Your task to perform on an android device: What's on my calendar today? Image 0: 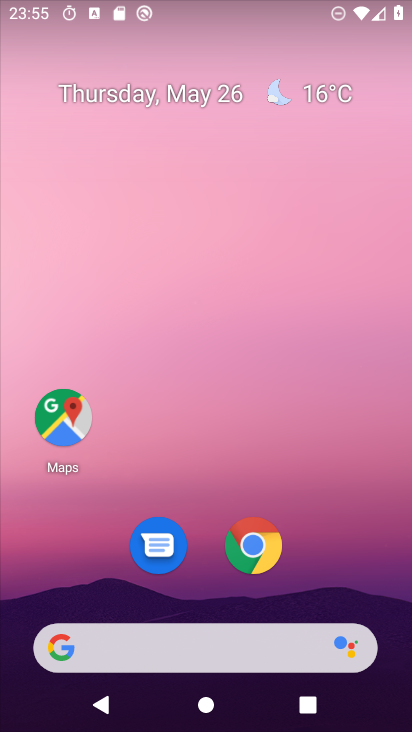
Step 0: press home button
Your task to perform on an android device: What's on my calendar today? Image 1: 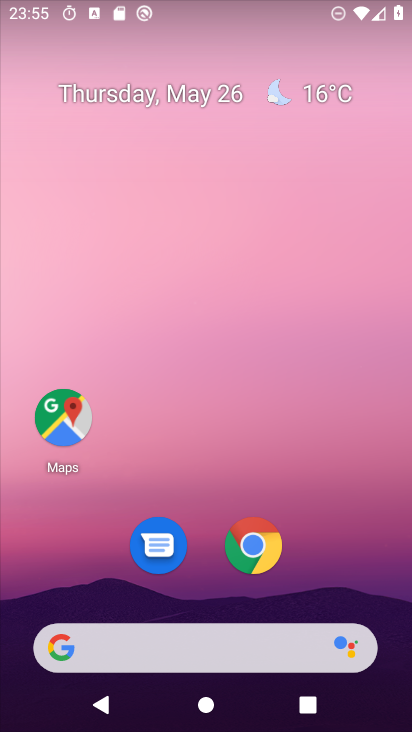
Step 1: drag from (328, 599) to (267, 214)
Your task to perform on an android device: What's on my calendar today? Image 2: 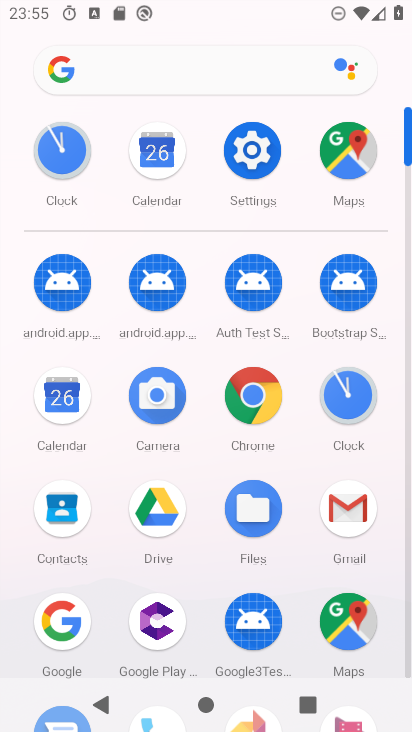
Step 2: click (61, 418)
Your task to perform on an android device: What's on my calendar today? Image 3: 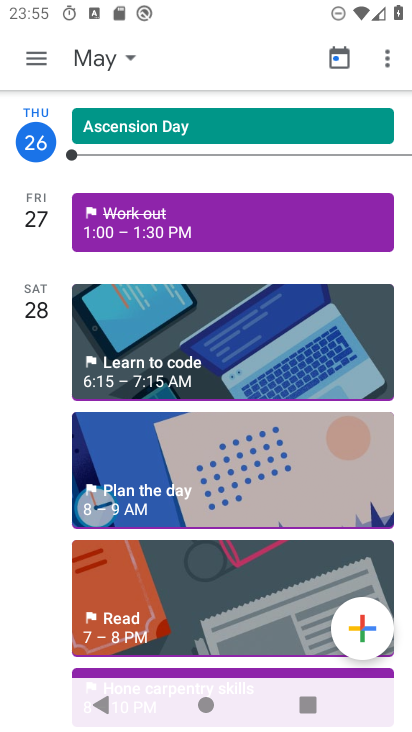
Step 3: task complete